Your task to perform on an android device: add a contact Image 0: 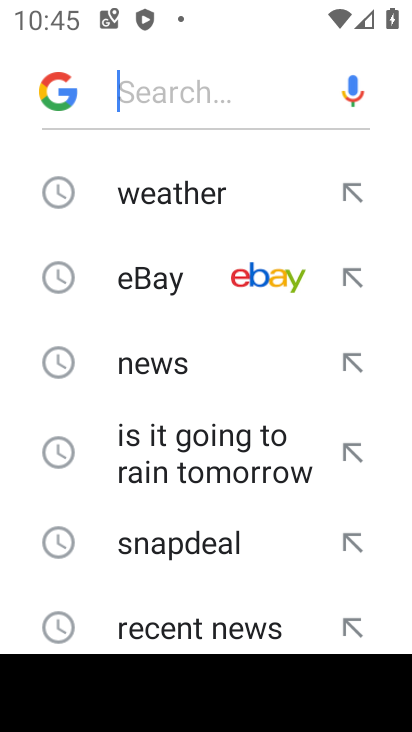
Step 0: press home button
Your task to perform on an android device: add a contact Image 1: 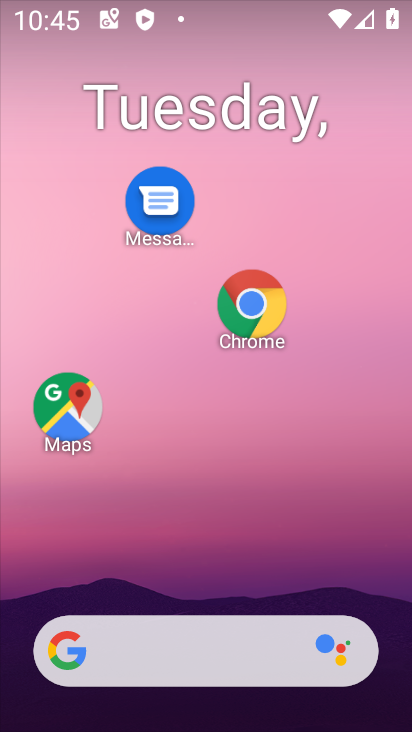
Step 1: drag from (202, 504) to (255, 124)
Your task to perform on an android device: add a contact Image 2: 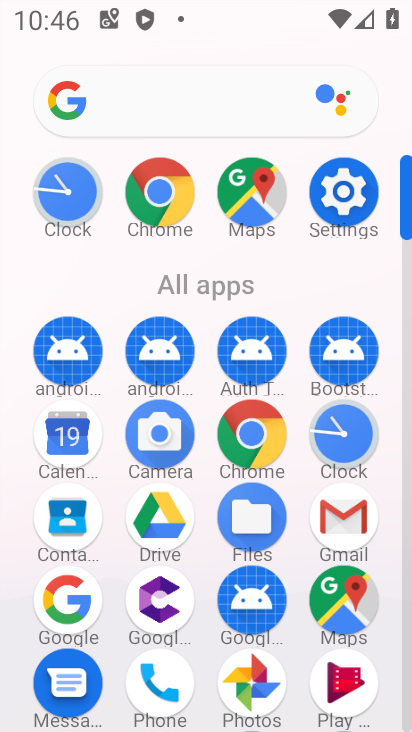
Step 2: click (159, 676)
Your task to perform on an android device: add a contact Image 3: 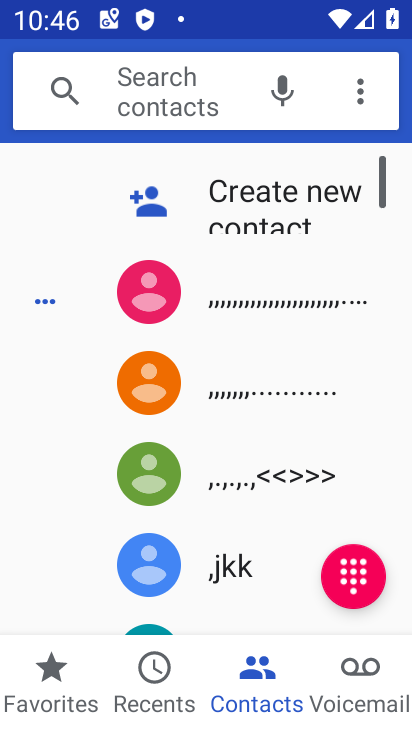
Step 3: click (267, 181)
Your task to perform on an android device: add a contact Image 4: 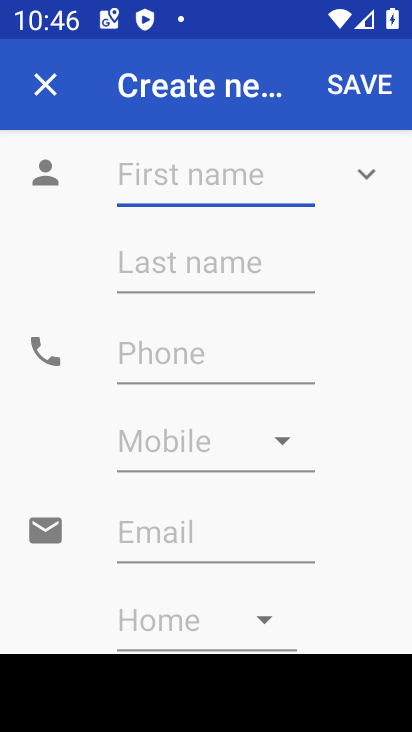
Step 4: click (240, 180)
Your task to perform on an android device: add a contact Image 5: 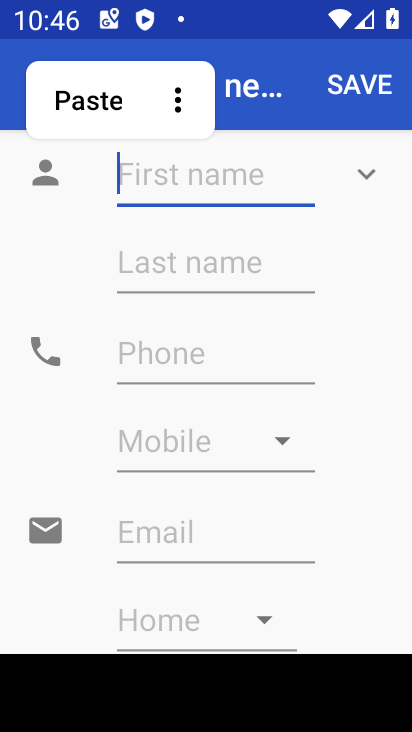
Step 5: type "mmmmmmmmmmmmmm"
Your task to perform on an android device: add a contact Image 6: 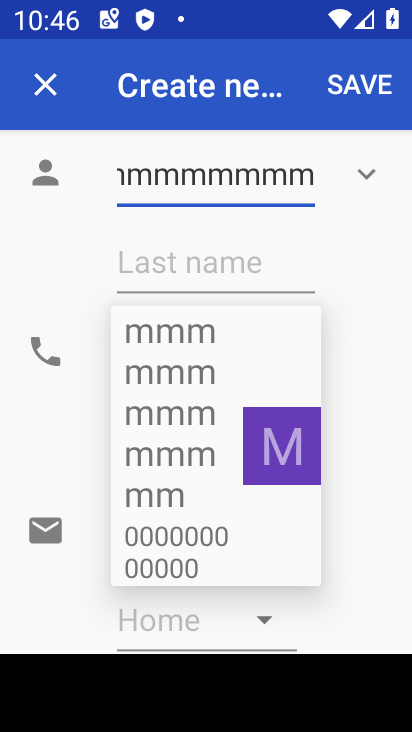
Step 6: click (215, 257)
Your task to perform on an android device: add a contact Image 7: 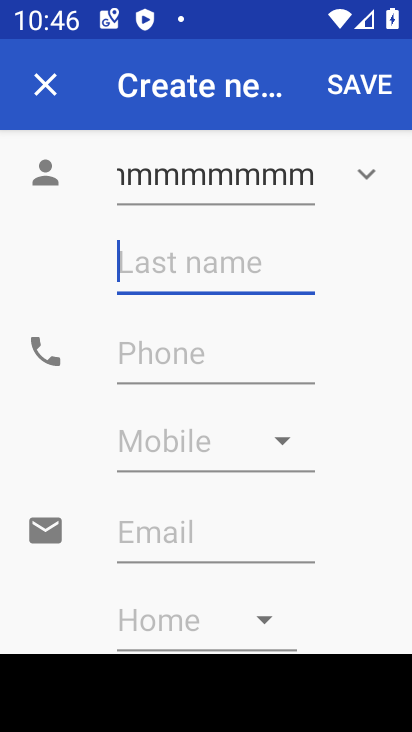
Step 7: click (204, 367)
Your task to perform on an android device: add a contact Image 8: 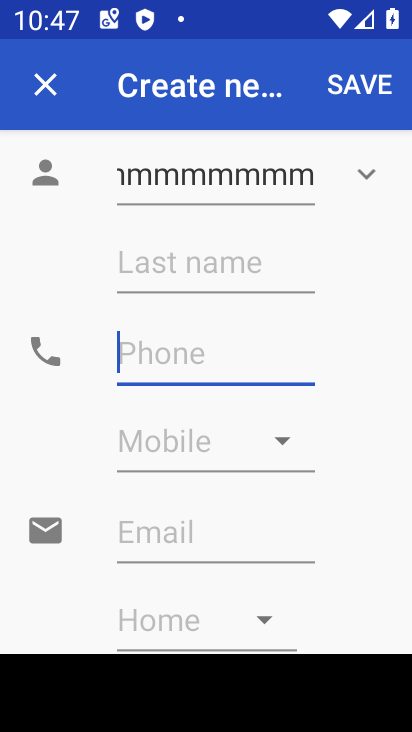
Step 8: type "777777777777"
Your task to perform on an android device: add a contact Image 9: 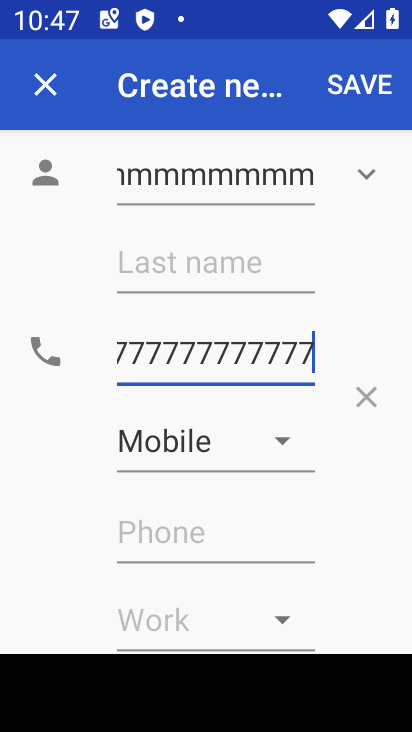
Step 9: click (337, 77)
Your task to perform on an android device: add a contact Image 10: 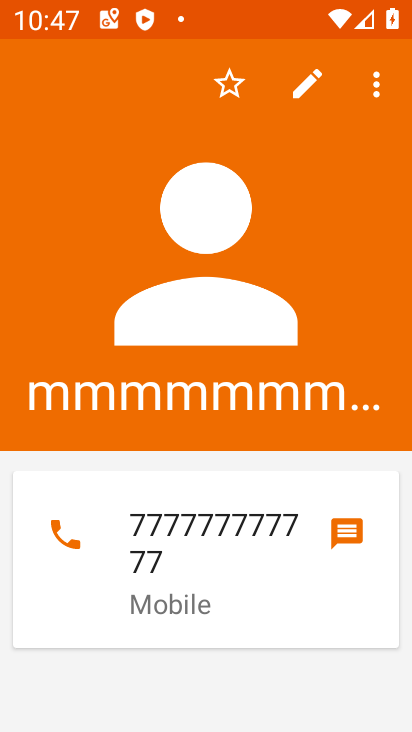
Step 10: task complete